Your task to perform on an android device: open app "Spotify: Music and Podcasts" (install if not already installed) Image 0: 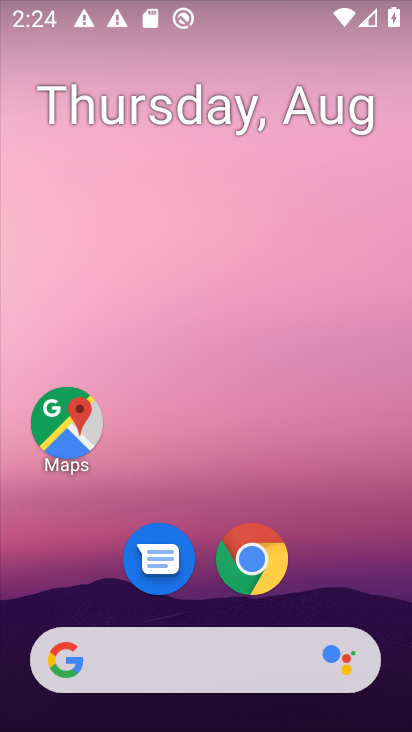
Step 0: drag from (214, 504) to (260, 77)
Your task to perform on an android device: open app "Spotify: Music and Podcasts" (install if not already installed) Image 1: 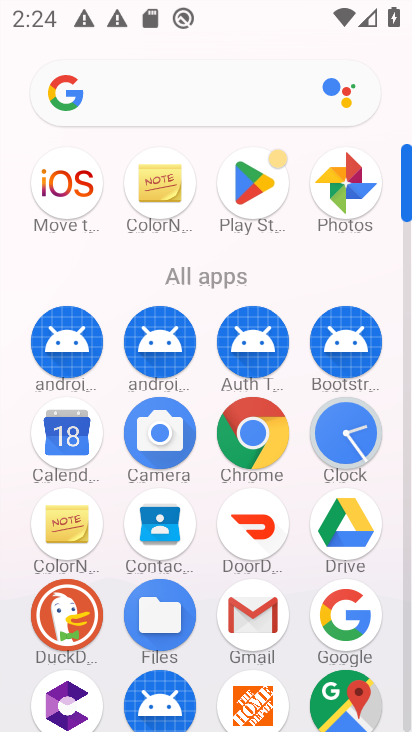
Step 1: click (257, 179)
Your task to perform on an android device: open app "Spotify: Music and Podcasts" (install if not already installed) Image 2: 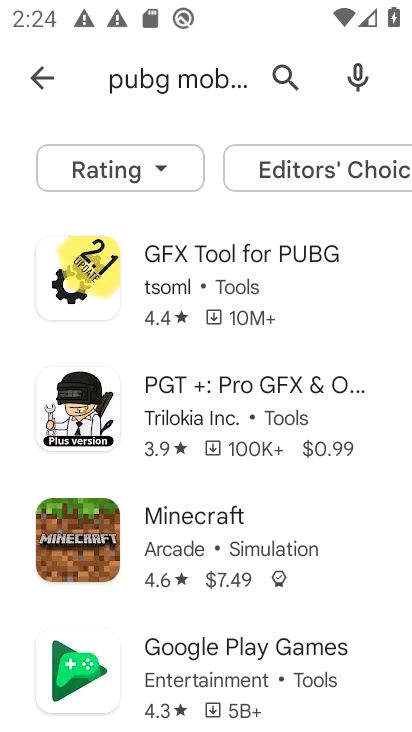
Step 2: click (284, 81)
Your task to perform on an android device: open app "Spotify: Music and Podcasts" (install if not already installed) Image 3: 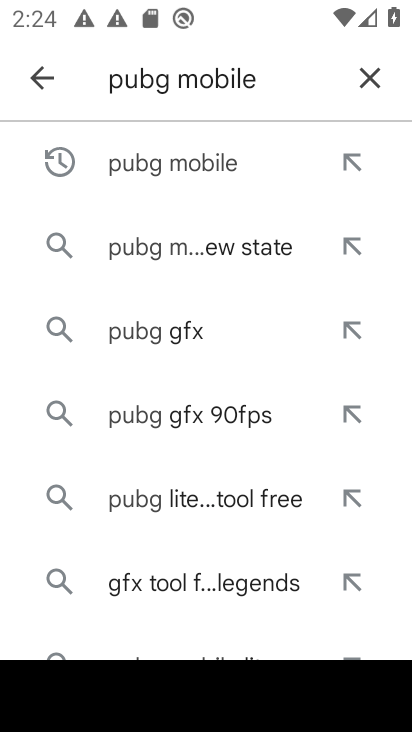
Step 3: click (381, 68)
Your task to perform on an android device: open app "Spotify: Music and Podcasts" (install if not already installed) Image 4: 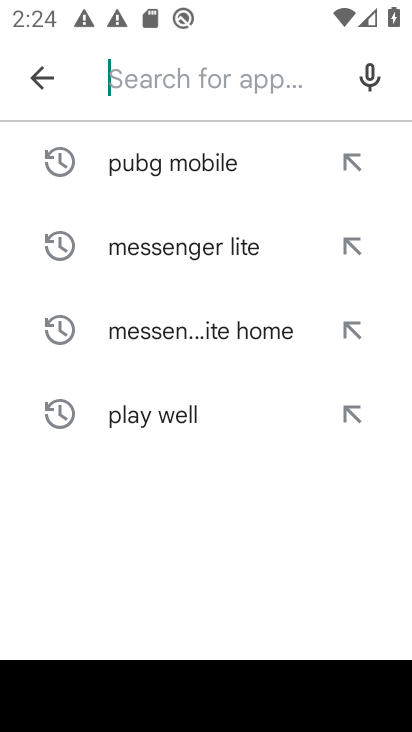
Step 4: type "spotify"
Your task to perform on an android device: open app "Spotify: Music and Podcasts" (install if not already installed) Image 5: 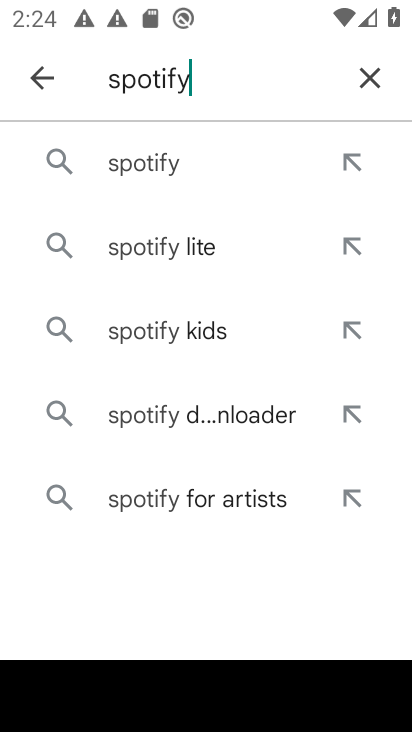
Step 5: click (147, 166)
Your task to perform on an android device: open app "Spotify: Music and Podcasts" (install if not already installed) Image 6: 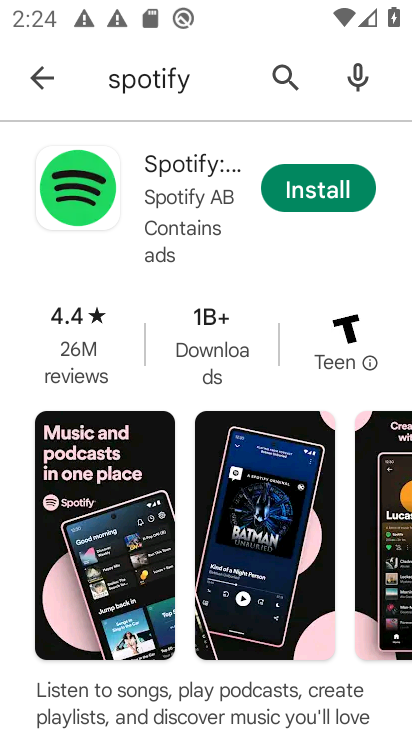
Step 6: click (314, 195)
Your task to perform on an android device: open app "Spotify: Music and Podcasts" (install if not already installed) Image 7: 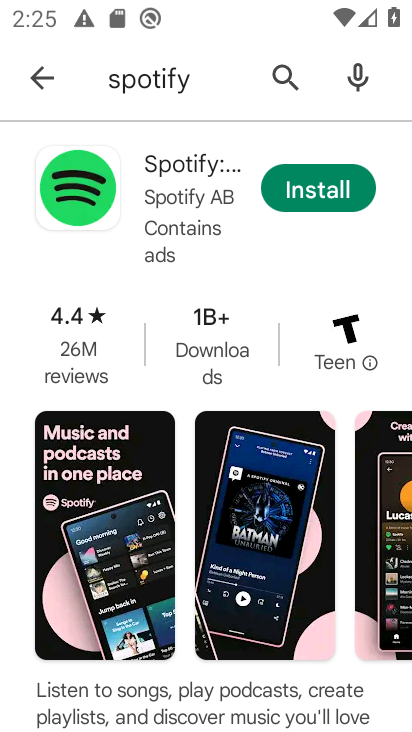
Step 7: click (327, 178)
Your task to perform on an android device: open app "Spotify: Music and Podcasts" (install if not already installed) Image 8: 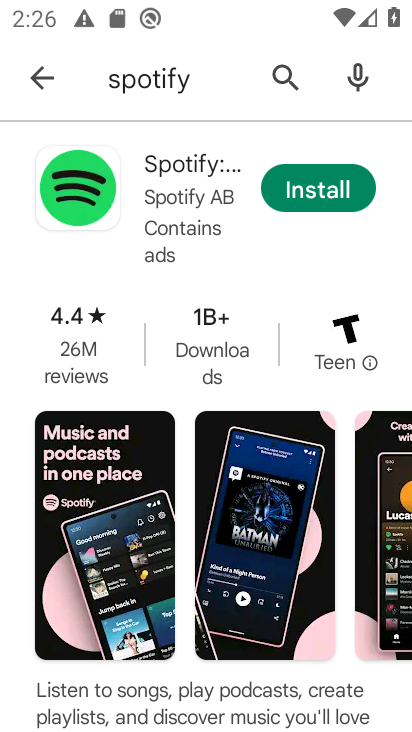
Step 8: click (324, 202)
Your task to perform on an android device: open app "Spotify: Music and Podcasts" (install if not already installed) Image 9: 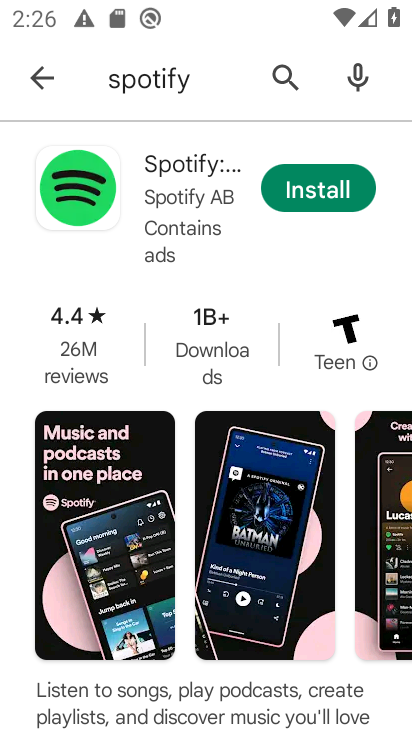
Step 9: click (311, 193)
Your task to perform on an android device: open app "Spotify: Music and Podcasts" (install if not already installed) Image 10: 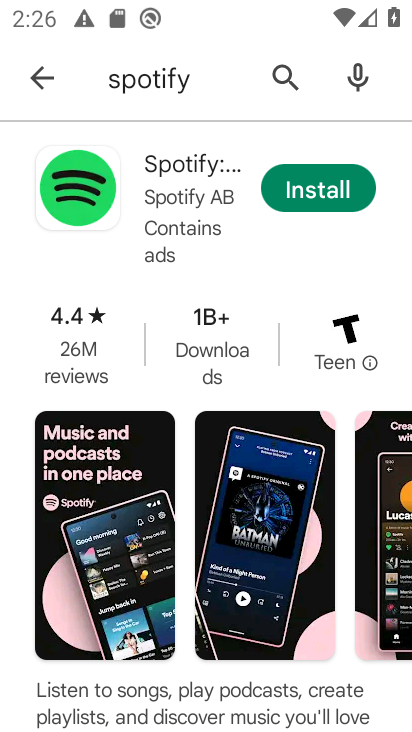
Step 10: click (297, 195)
Your task to perform on an android device: open app "Spotify: Music and Podcasts" (install if not already installed) Image 11: 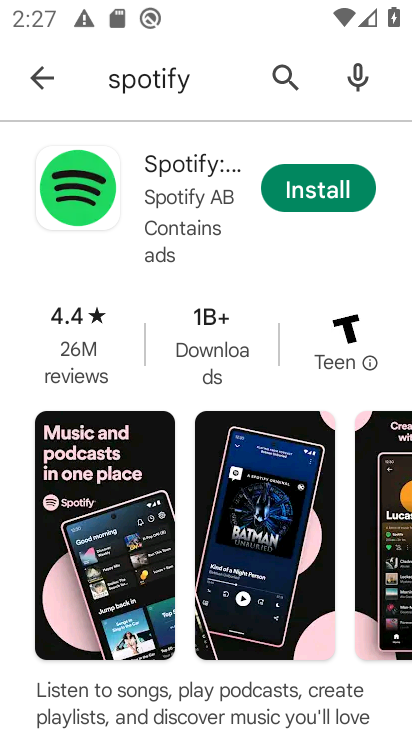
Step 11: task complete